Your task to perform on an android device: toggle improve location accuracy Image 0: 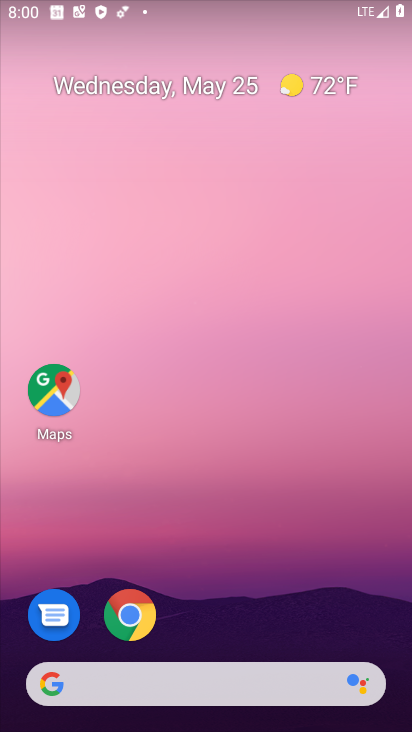
Step 0: drag from (277, 532) to (249, 0)
Your task to perform on an android device: toggle improve location accuracy Image 1: 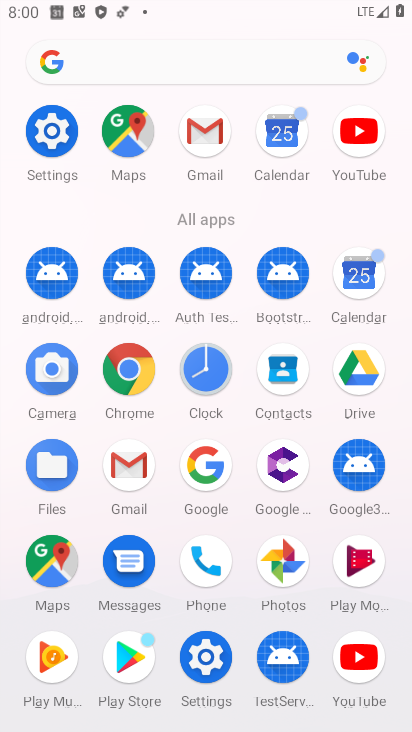
Step 1: click (53, 134)
Your task to perform on an android device: toggle improve location accuracy Image 2: 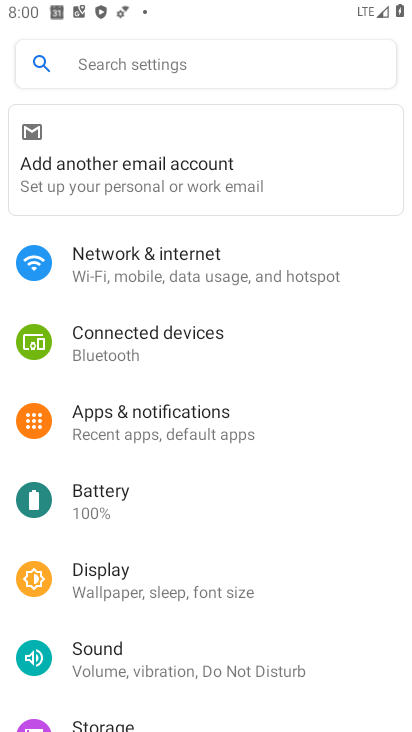
Step 2: drag from (180, 577) to (206, 229)
Your task to perform on an android device: toggle improve location accuracy Image 3: 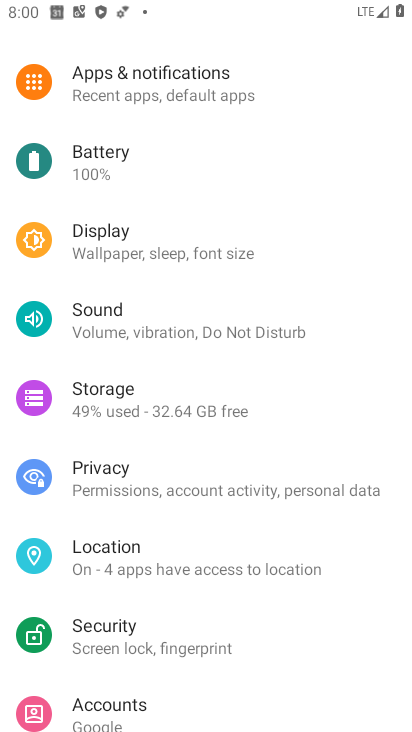
Step 3: click (178, 554)
Your task to perform on an android device: toggle improve location accuracy Image 4: 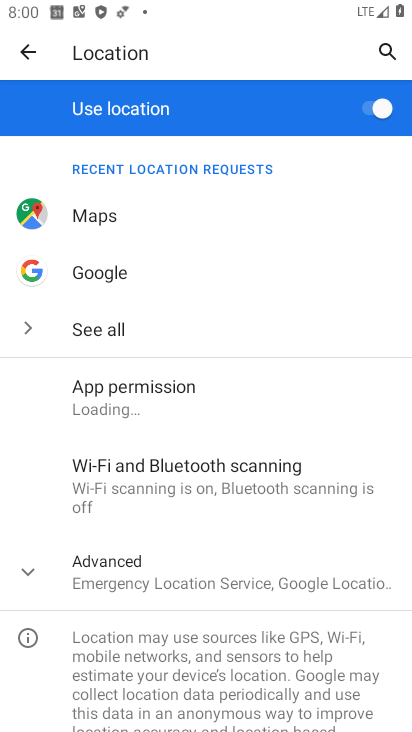
Step 4: click (33, 568)
Your task to perform on an android device: toggle improve location accuracy Image 5: 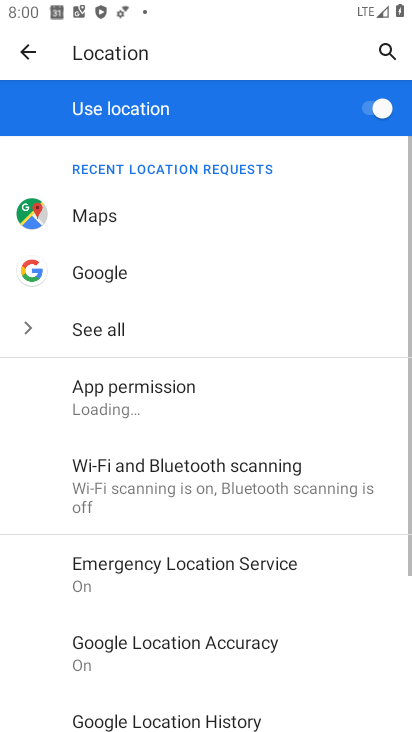
Step 5: drag from (260, 528) to (293, 297)
Your task to perform on an android device: toggle improve location accuracy Image 6: 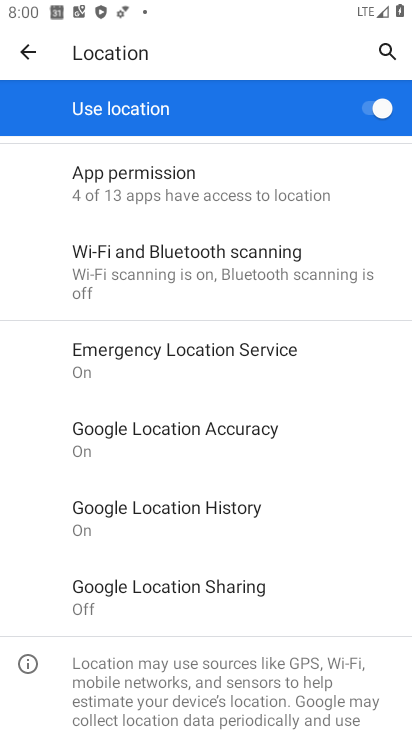
Step 6: click (222, 448)
Your task to perform on an android device: toggle improve location accuracy Image 7: 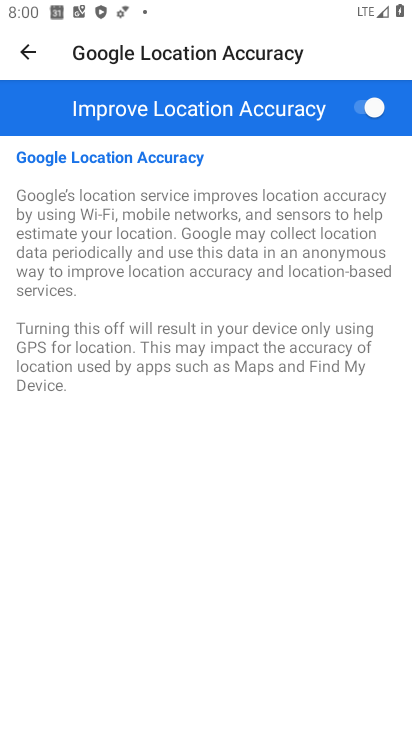
Step 7: click (367, 106)
Your task to perform on an android device: toggle improve location accuracy Image 8: 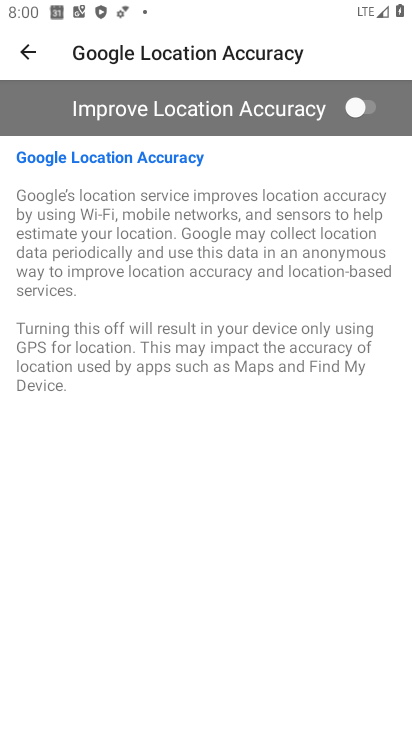
Step 8: task complete